Your task to perform on an android device: Go to eBay Image 0: 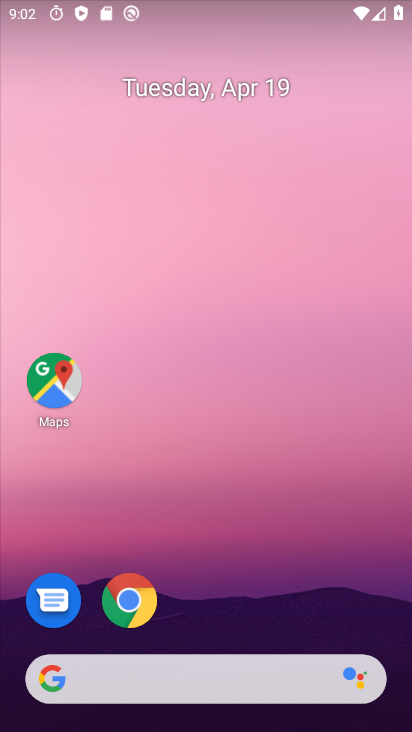
Step 0: click (152, 603)
Your task to perform on an android device: Go to eBay Image 1: 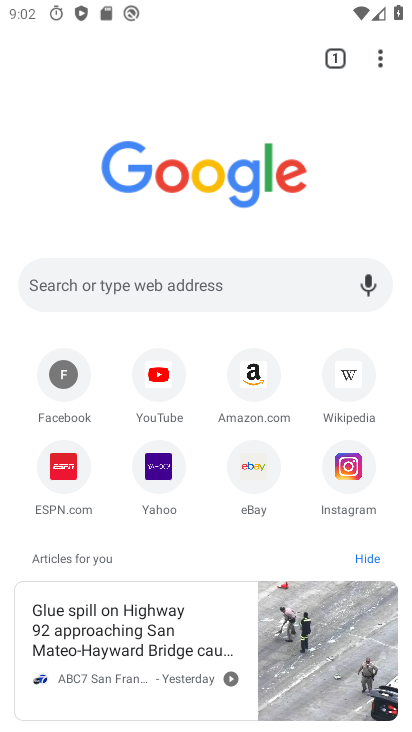
Step 1: click (254, 466)
Your task to perform on an android device: Go to eBay Image 2: 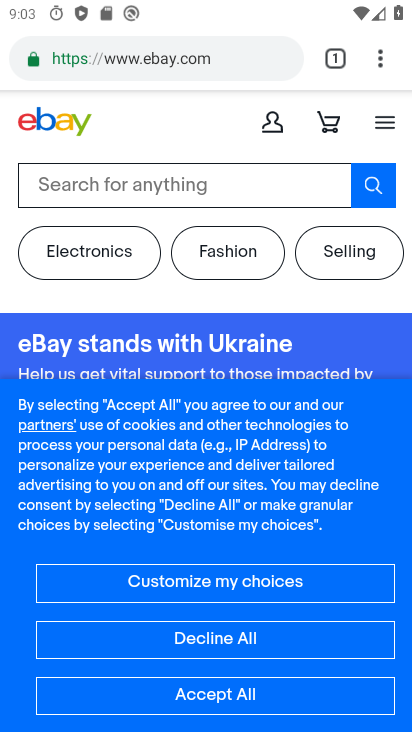
Step 2: task complete